Your task to perform on an android device: Open the phone app and click the voicemail tab. Image 0: 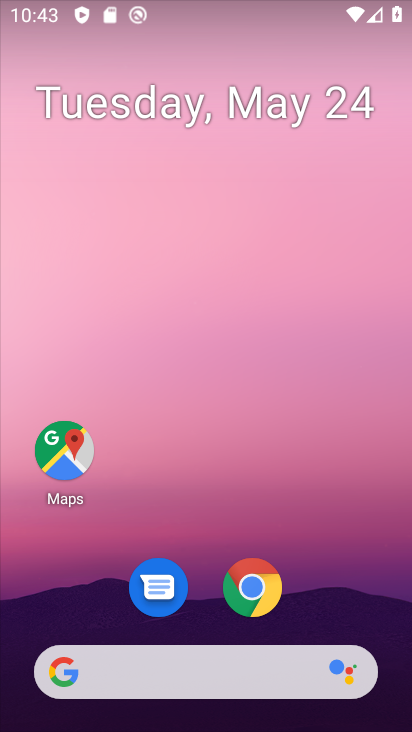
Step 0: drag from (387, 604) to (366, 123)
Your task to perform on an android device: Open the phone app and click the voicemail tab. Image 1: 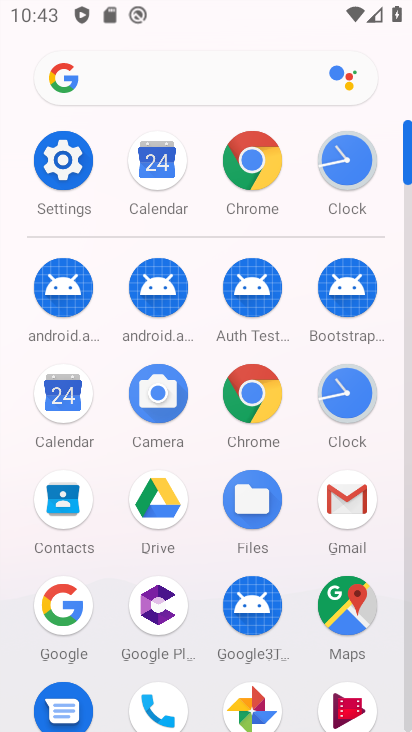
Step 1: click (160, 695)
Your task to perform on an android device: Open the phone app and click the voicemail tab. Image 2: 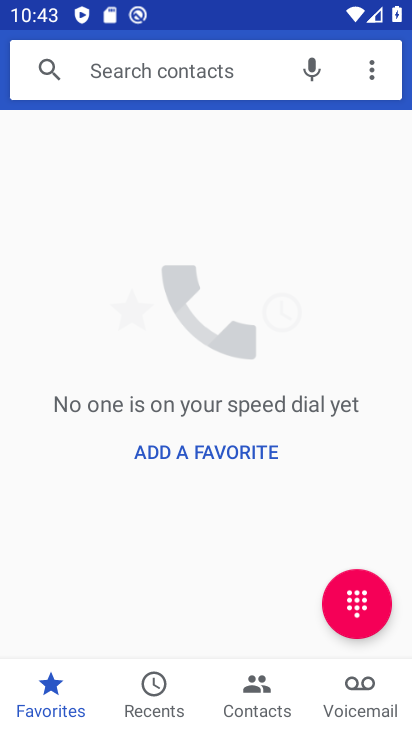
Step 2: click (344, 702)
Your task to perform on an android device: Open the phone app and click the voicemail tab. Image 3: 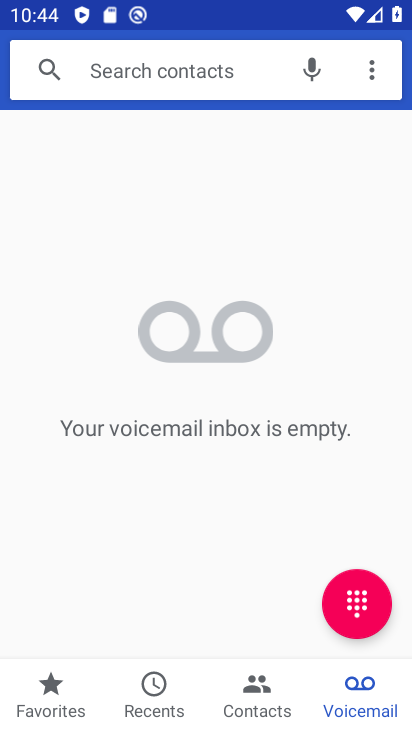
Step 3: task complete